Your task to perform on an android device: When is my next appointment? Image 0: 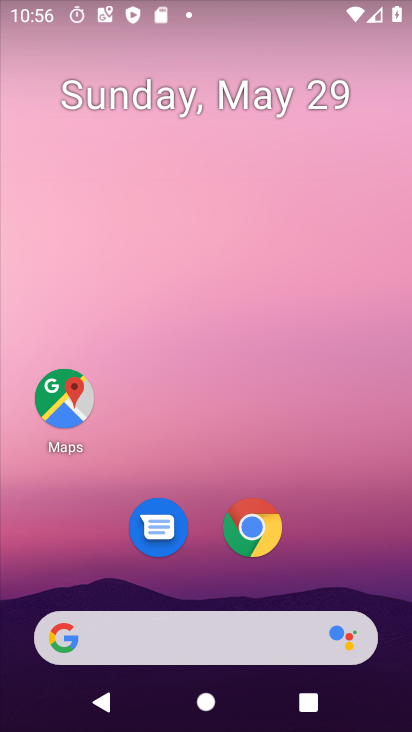
Step 0: drag from (326, 461) to (308, 51)
Your task to perform on an android device: When is my next appointment? Image 1: 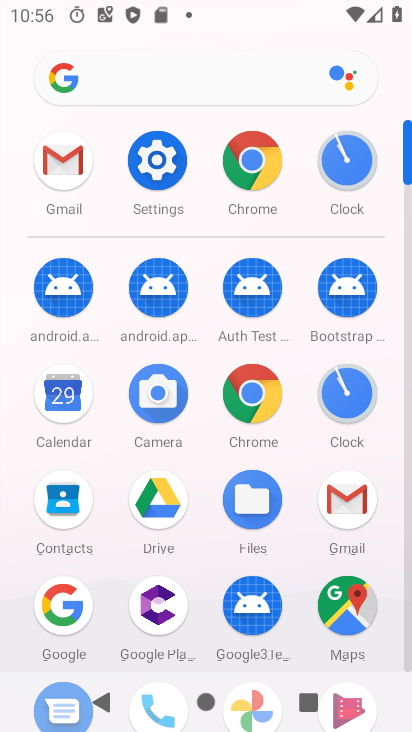
Step 1: click (84, 394)
Your task to perform on an android device: When is my next appointment? Image 2: 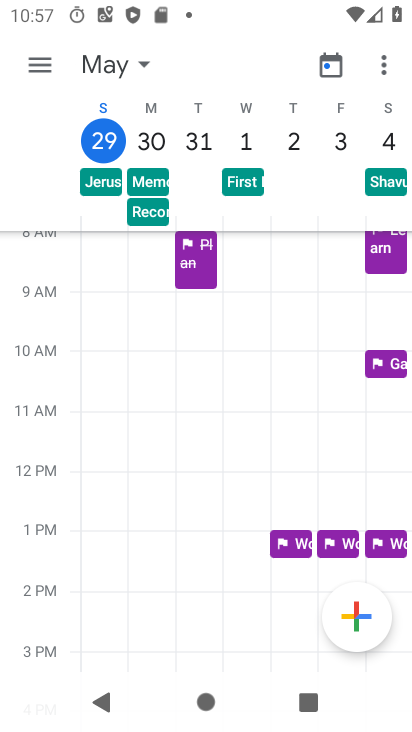
Step 2: task complete